Your task to perform on an android device: Do I have any events today? Image 0: 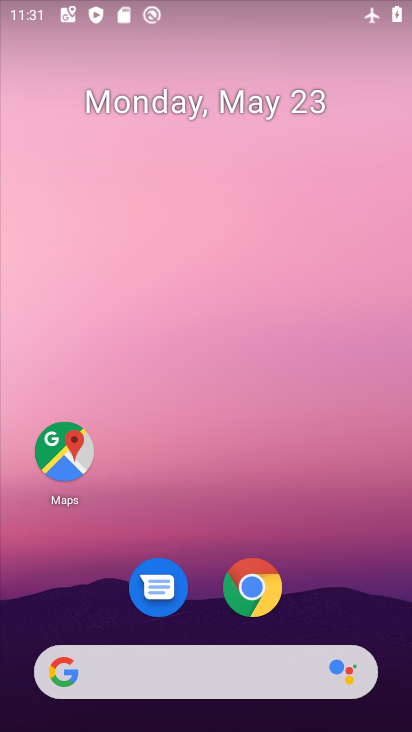
Step 0: drag from (357, 611) to (287, 87)
Your task to perform on an android device: Do I have any events today? Image 1: 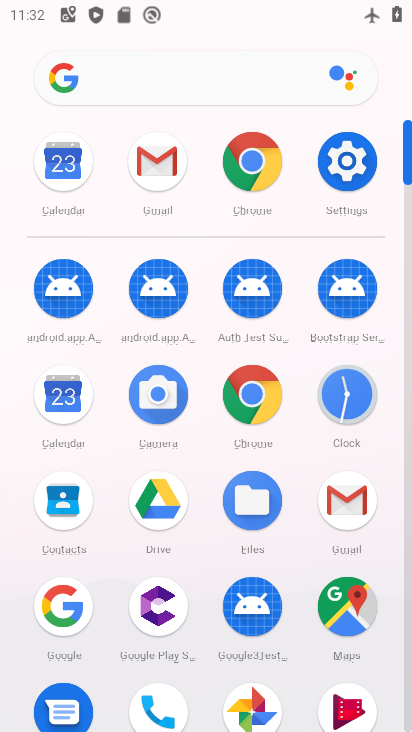
Step 1: click (78, 400)
Your task to perform on an android device: Do I have any events today? Image 2: 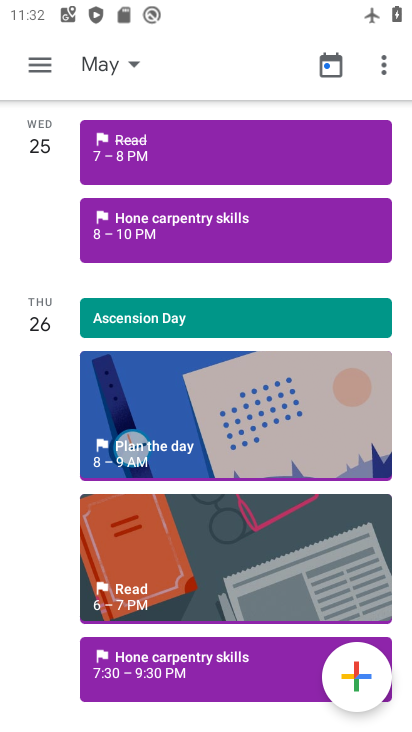
Step 2: click (49, 69)
Your task to perform on an android device: Do I have any events today? Image 3: 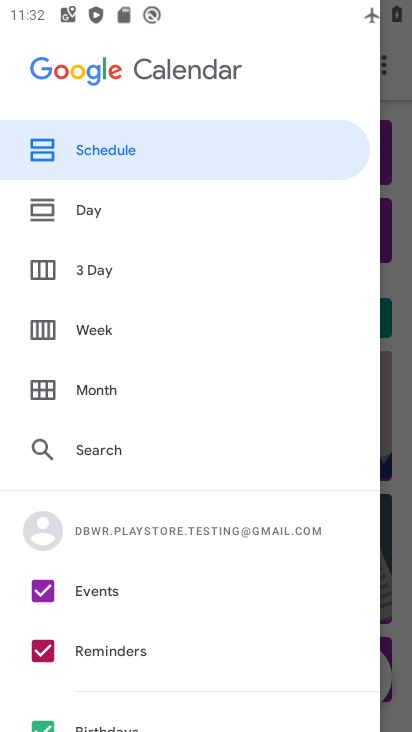
Step 3: drag from (236, 671) to (226, 155)
Your task to perform on an android device: Do I have any events today? Image 4: 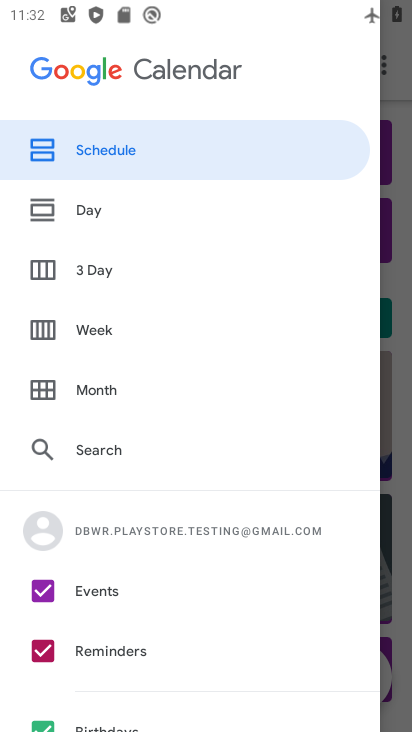
Step 4: drag from (180, 691) to (148, 253)
Your task to perform on an android device: Do I have any events today? Image 5: 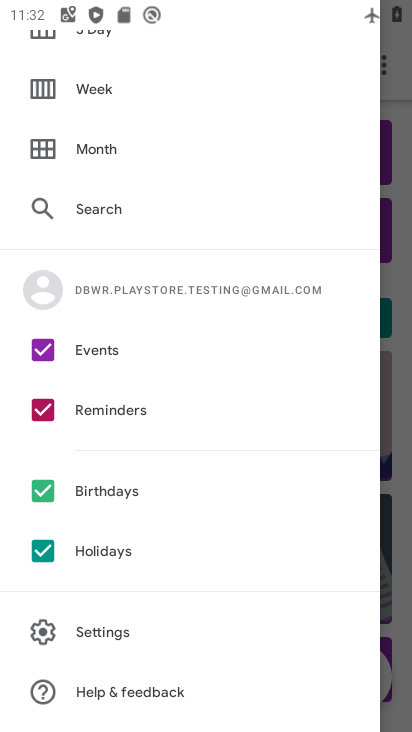
Step 5: click (41, 551)
Your task to perform on an android device: Do I have any events today? Image 6: 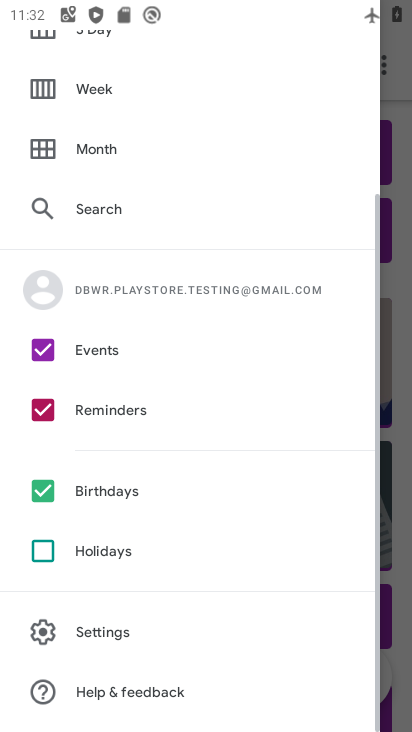
Step 6: click (41, 492)
Your task to perform on an android device: Do I have any events today? Image 7: 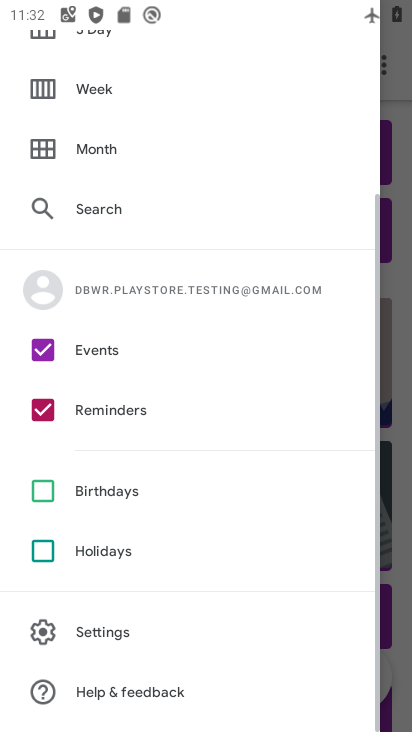
Step 7: click (40, 415)
Your task to perform on an android device: Do I have any events today? Image 8: 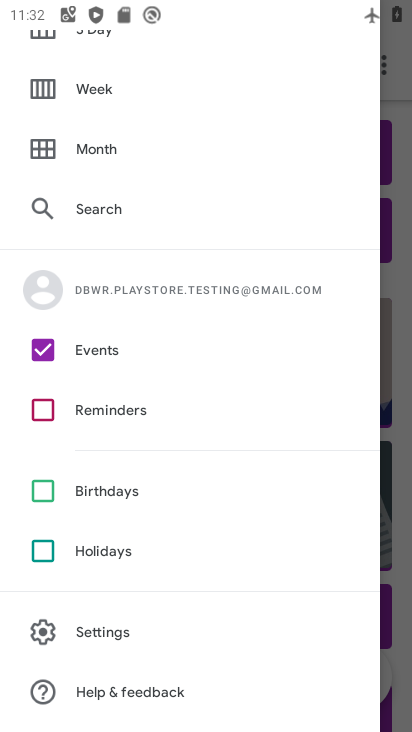
Step 8: drag from (172, 145) to (197, 432)
Your task to perform on an android device: Do I have any events today? Image 9: 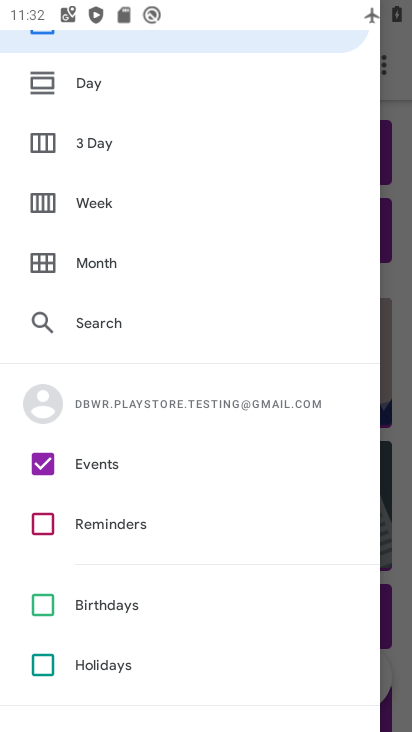
Step 9: click (103, 90)
Your task to perform on an android device: Do I have any events today? Image 10: 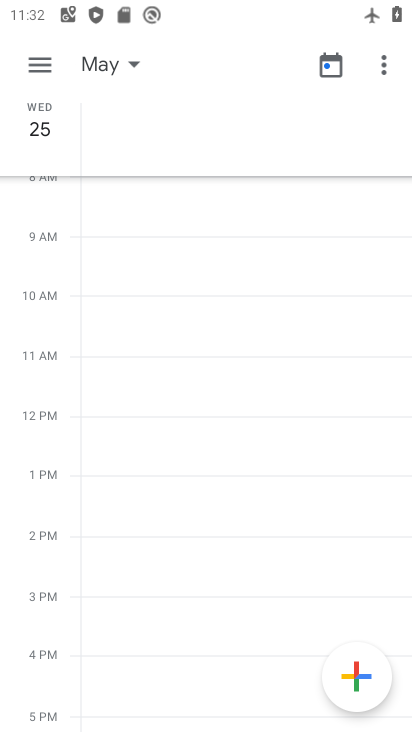
Step 10: click (109, 68)
Your task to perform on an android device: Do I have any events today? Image 11: 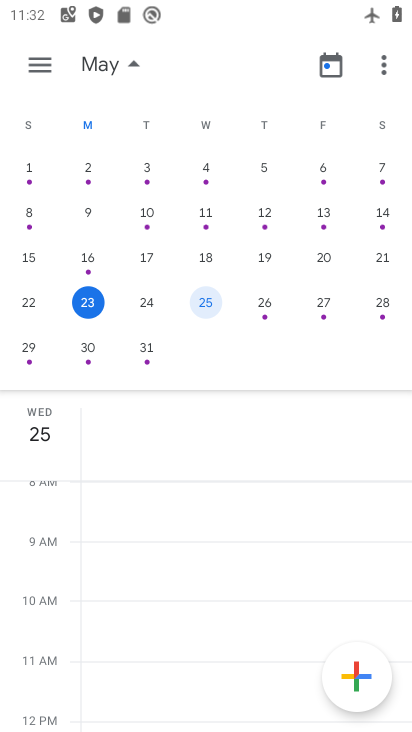
Step 11: click (150, 311)
Your task to perform on an android device: Do I have any events today? Image 12: 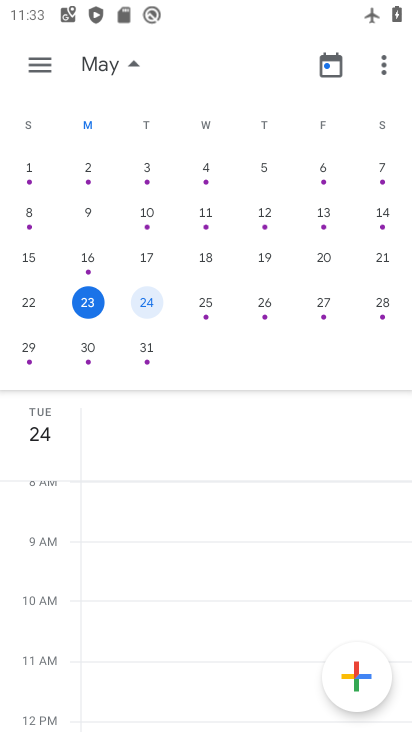
Step 12: click (124, 69)
Your task to perform on an android device: Do I have any events today? Image 13: 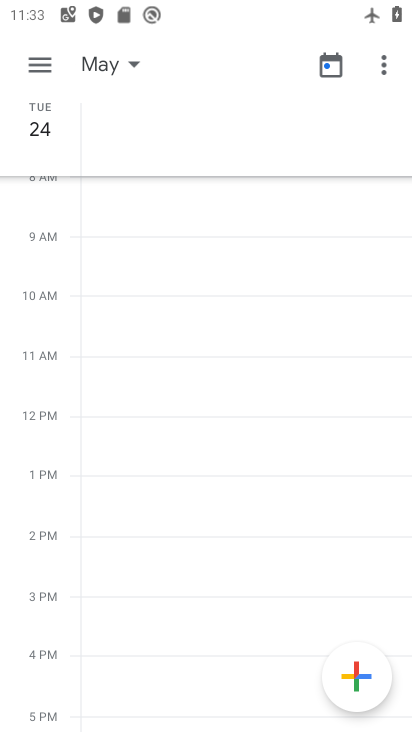
Step 13: task complete